Your task to perform on an android device: Open battery settings Image 0: 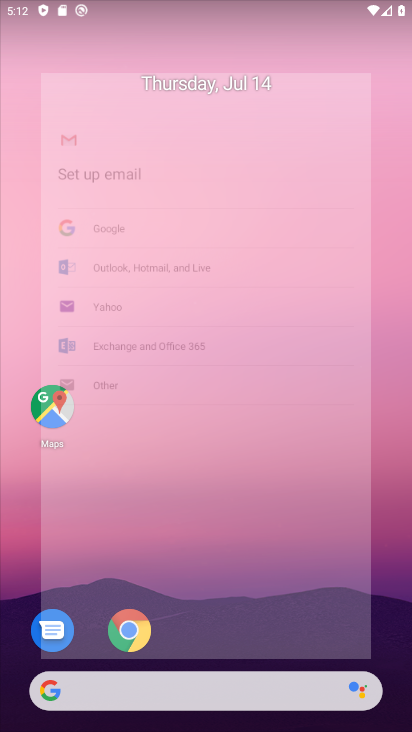
Step 0: press home button
Your task to perform on an android device: Open battery settings Image 1: 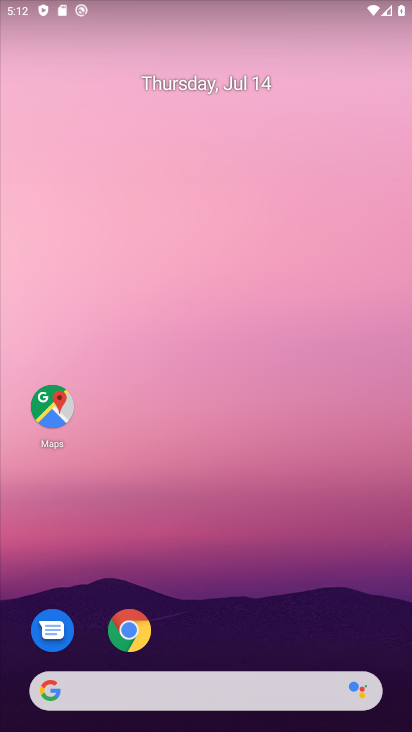
Step 1: drag from (290, 649) to (234, 60)
Your task to perform on an android device: Open battery settings Image 2: 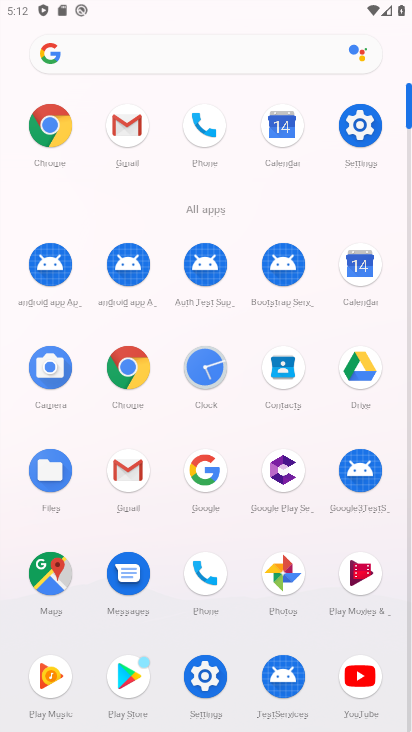
Step 2: click (352, 139)
Your task to perform on an android device: Open battery settings Image 3: 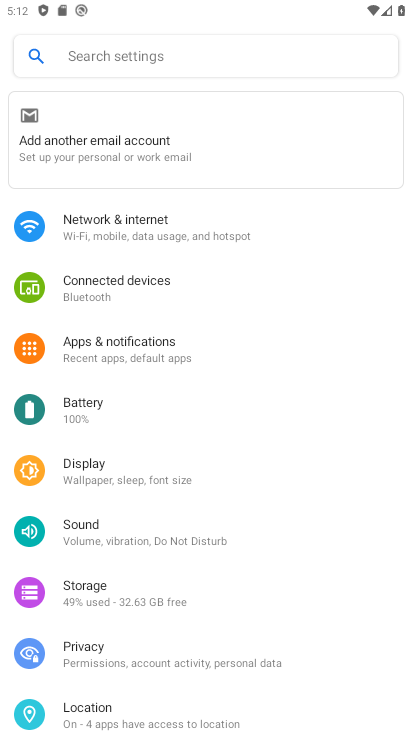
Step 3: click (80, 415)
Your task to perform on an android device: Open battery settings Image 4: 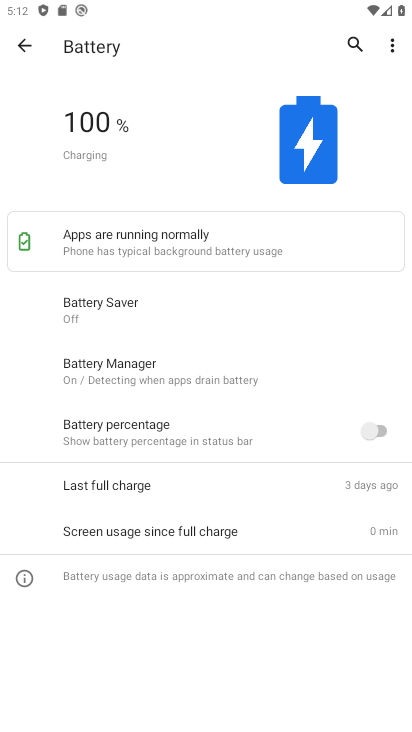
Step 4: task complete